Your task to perform on an android device: Open Chrome and go to settings Image 0: 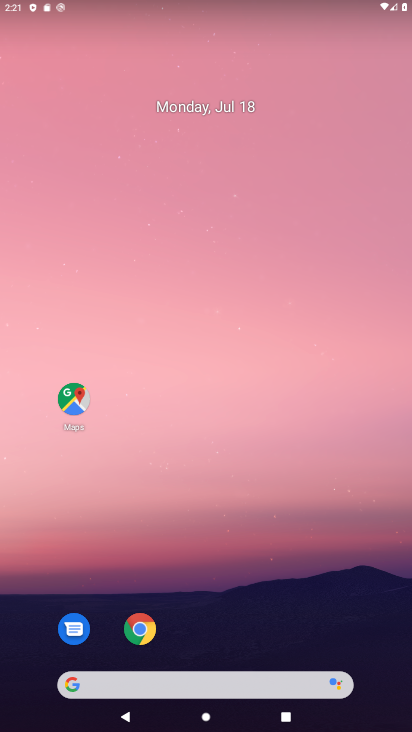
Step 0: drag from (215, 664) to (316, 126)
Your task to perform on an android device: Open Chrome and go to settings Image 1: 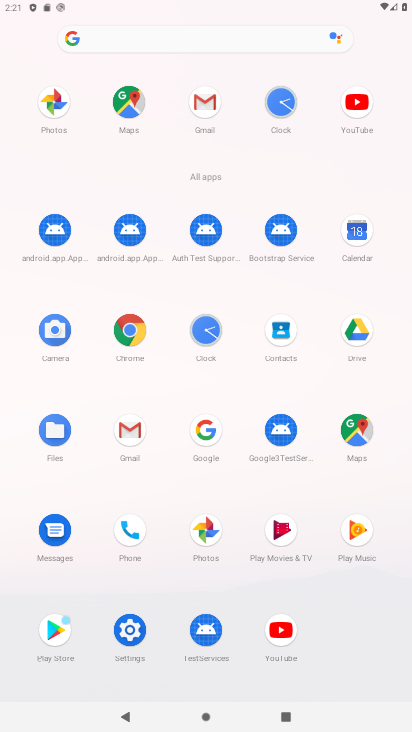
Step 1: click (124, 334)
Your task to perform on an android device: Open Chrome and go to settings Image 2: 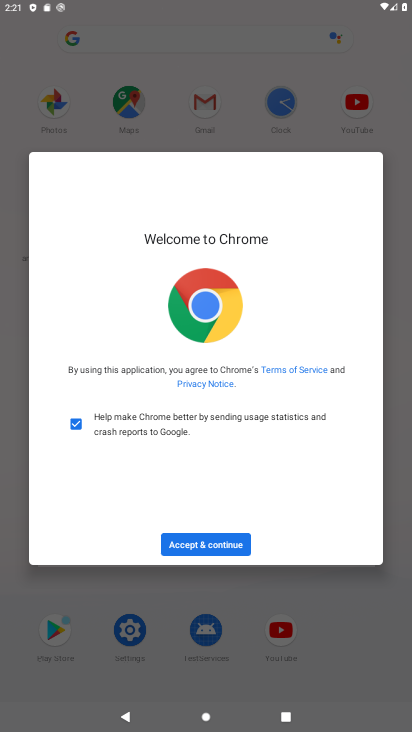
Step 2: click (204, 538)
Your task to perform on an android device: Open Chrome and go to settings Image 3: 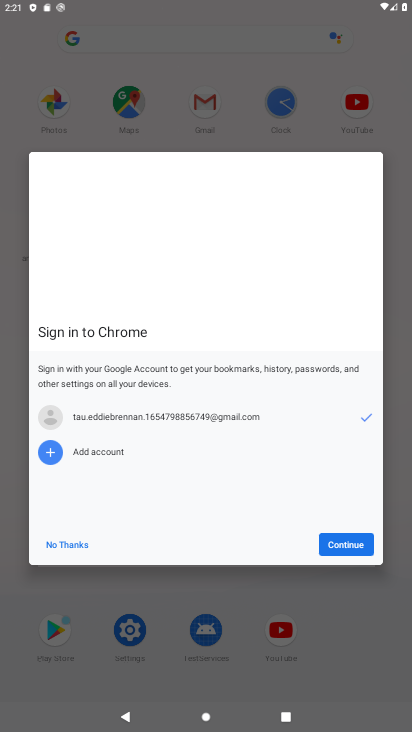
Step 3: click (323, 545)
Your task to perform on an android device: Open Chrome and go to settings Image 4: 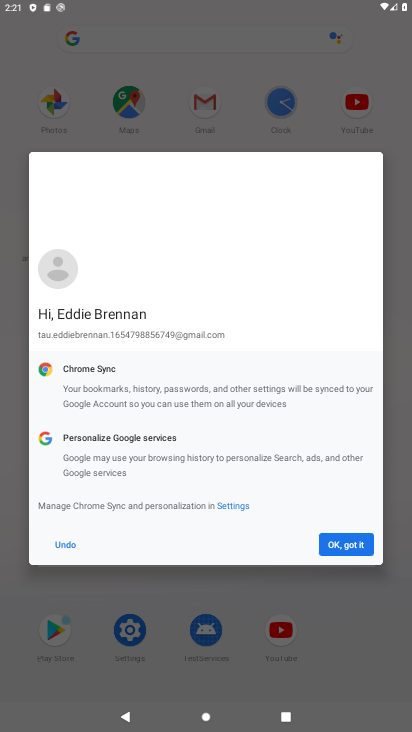
Step 4: click (339, 546)
Your task to perform on an android device: Open Chrome and go to settings Image 5: 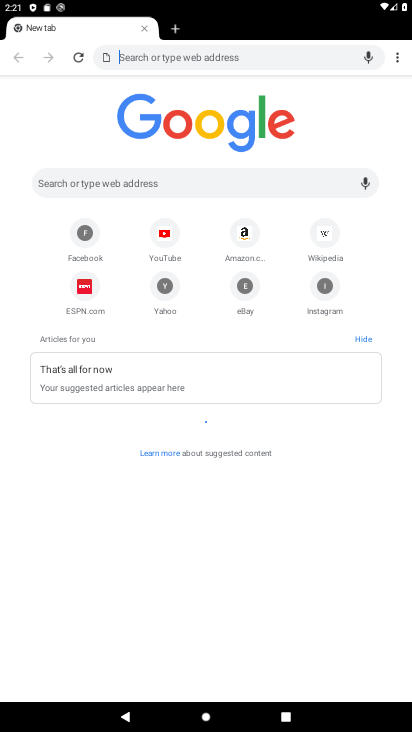
Step 5: task complete